Your task to perform on an android device: Open calendar and show me the first week of next month Image 0: 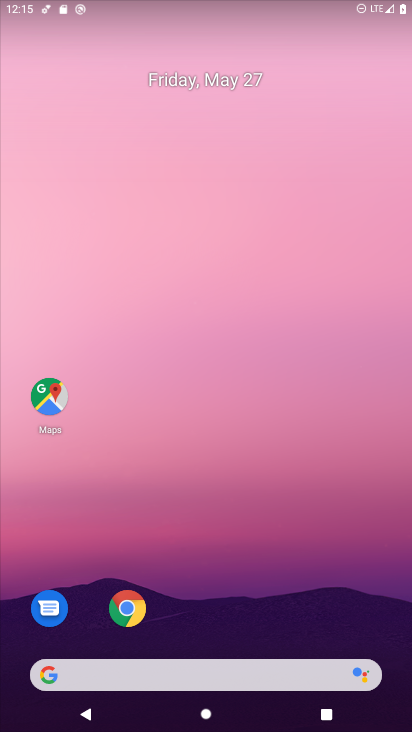
Step 0: press home button
Your task to perform on an android device: Open calendar and show me the first week of next month Image 1: 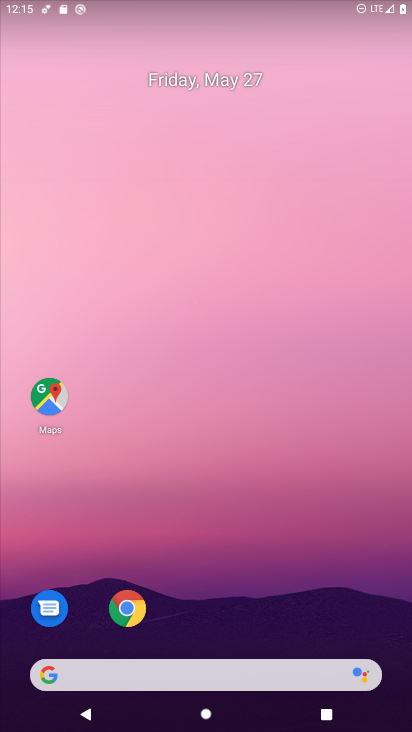
Step 1: drag from (124, 676) to (291, 174)
Your task to perform on an android device: Open calendar and show me the first week of next month Image 2: 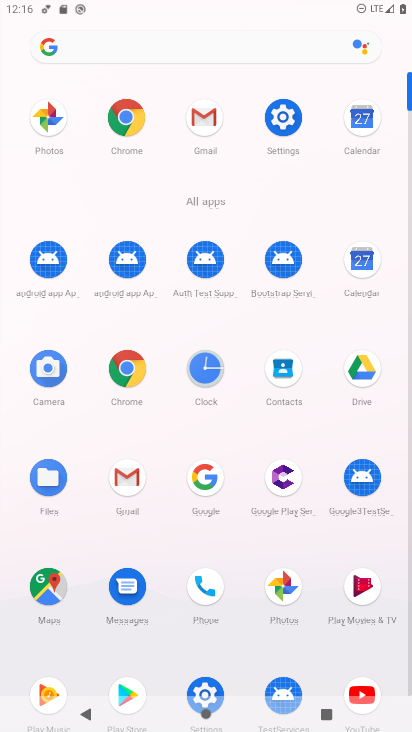
Step 2: click (363, 267)
Your task to perform on an android device: Open calendar and show me the first week of next month Image 3: 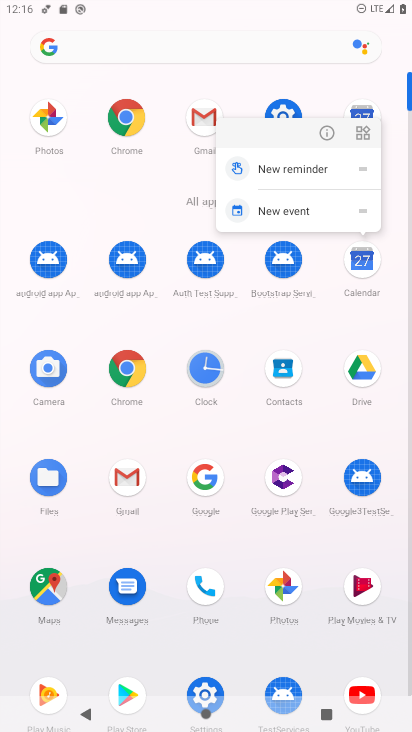
Step 3: click (358, 263)
Your task to perform on an android device: Open calendar and show me the first week of next month Image 4: 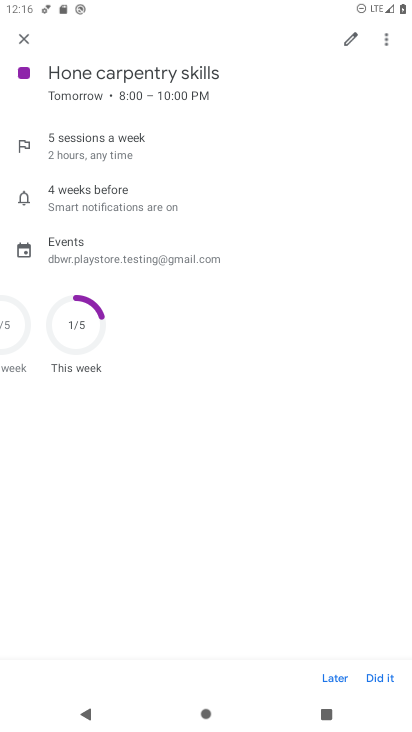
Step 4: click (24, 33)
Your task to perform on an android device: Open calendar and show me the first week of next month Image 5: 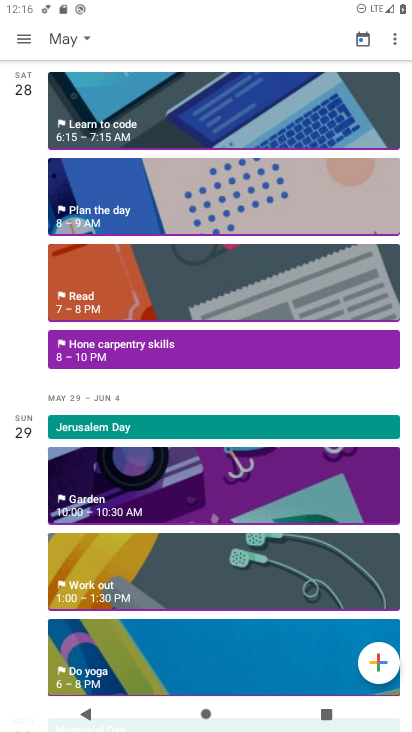
Step 5: click (57, 36)
Your task to perform on an android device: Open calendar and show me the first week of next month Image 6: 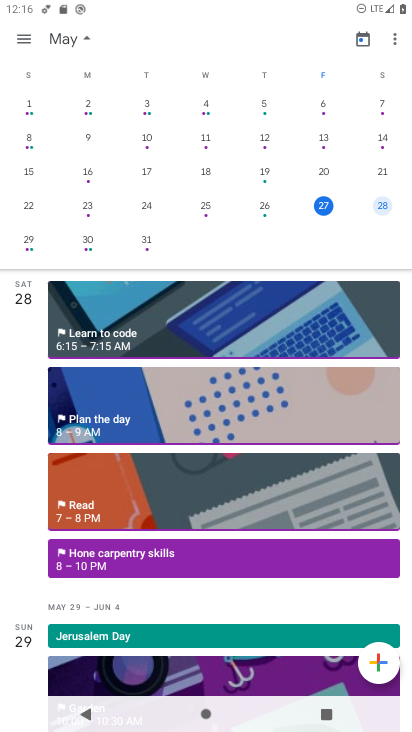
Step 6: drag from (298, 159) to (91, 189)
Your task to perform on an android device: Open calendar and show me the first week of next month Image 7: 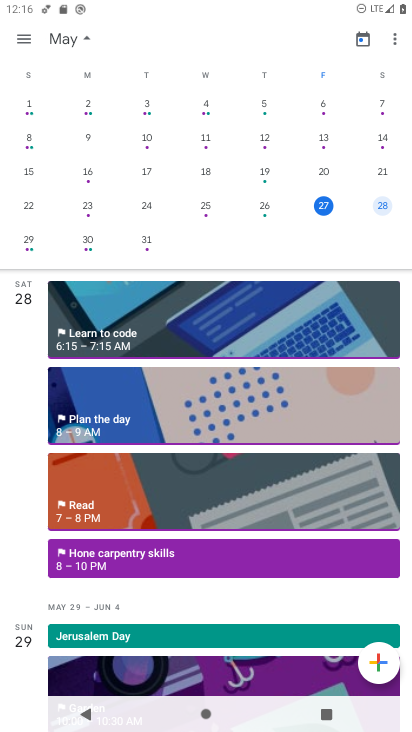
Step 7: drag from (363, 158) to (27, 249)
Your task to perform on an android device: Open calendar and show me the first week of next month Image 8: 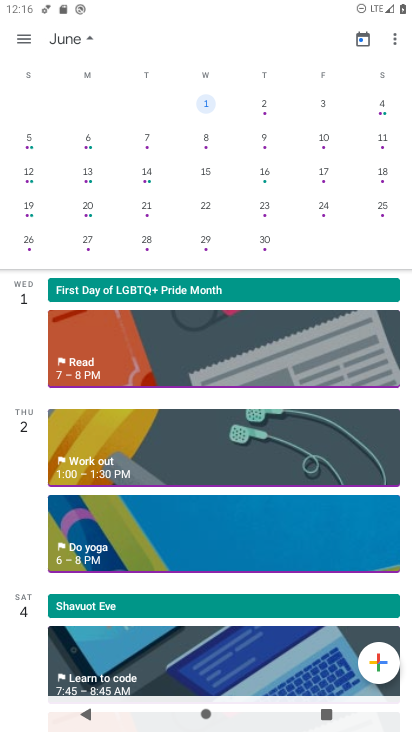
Step 8: click (208, 106)
Your task to perform on an android device: Open calendar and show me the first week of next month Image 9: 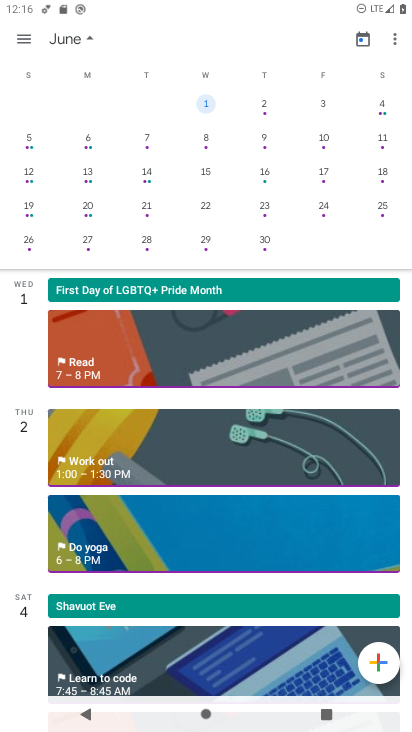
Step 9: click (20, 38)
Your task to perform on an android device: Open calendar and show me the first week of next month Image 10: 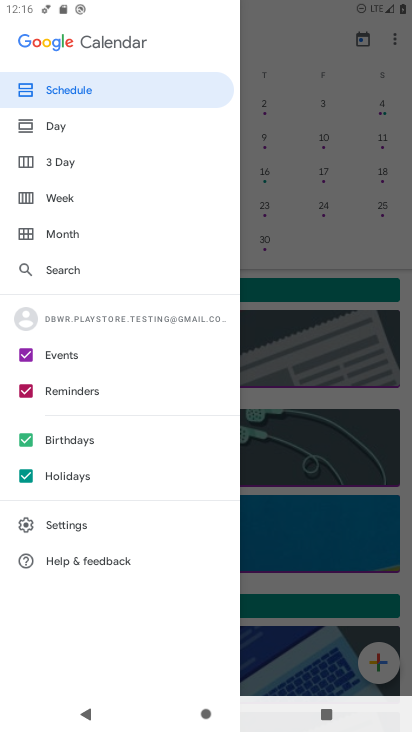
Step 10: click (60, 202)
Your task to perform on an android device: Open calendar and show me the first week of next month Image 11: 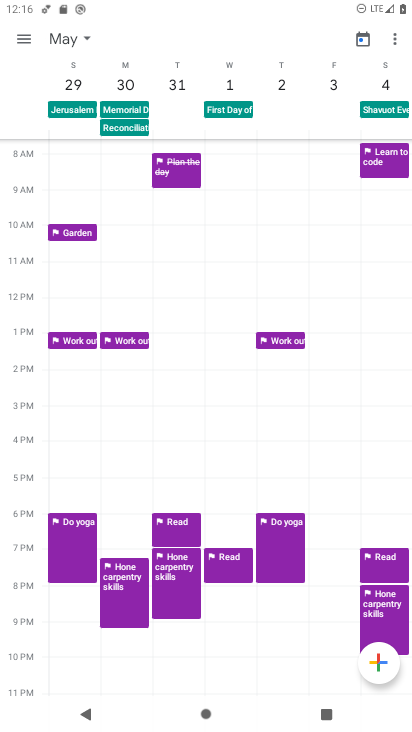
Step 11: task complete